Your task to perform on an android device: Search for seafood restaurants on Google Maps Image 0: 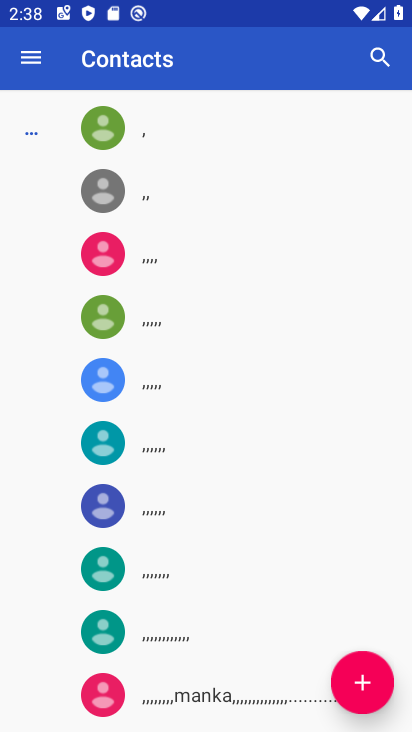
Step 0: press home button
Your task to perform on an android device: Search for seafood restaurants on Google Maps Image 1: 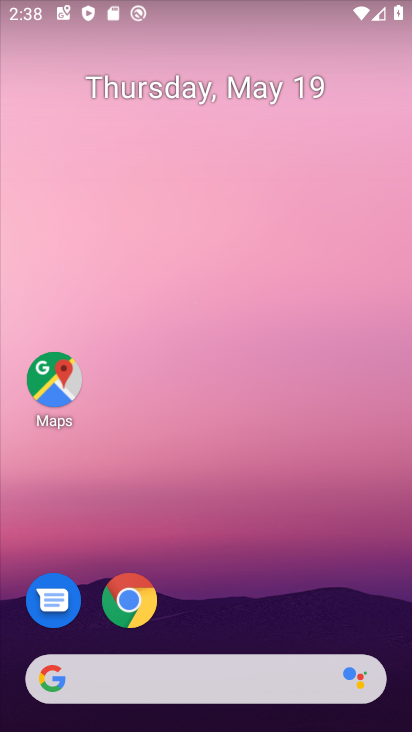
Step 1: click (65, 364)
Your task to perform on an android device: Search for seafood restaurants on Google Maps Image 2: 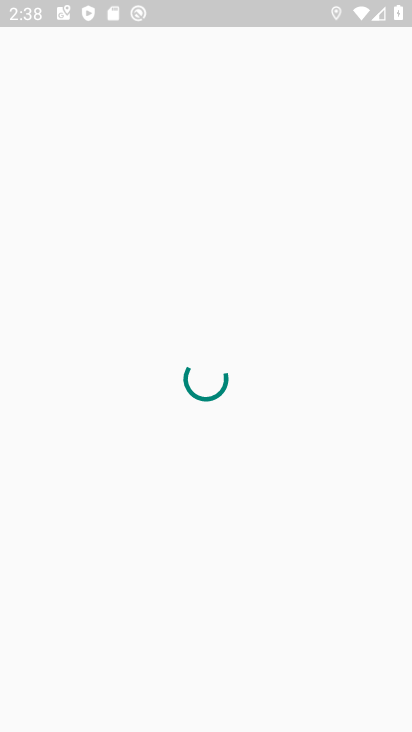
Step 2: click (205, 66)
Your task to perform on an android device: Search for seafood restaurants on Google Maps Image 3: 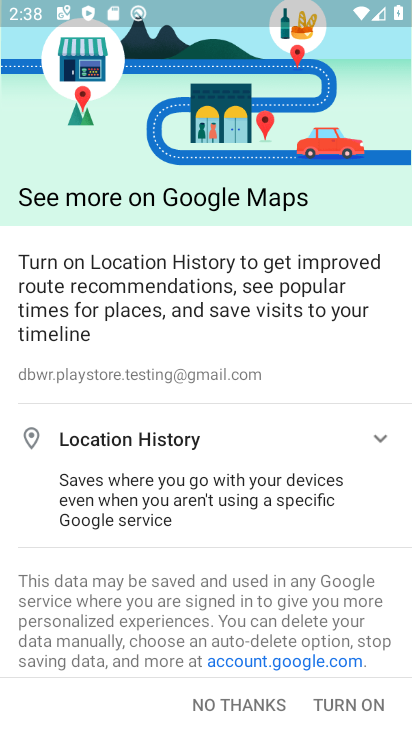
Step 3: click (351, 700)
Your task to perform on an android device: Search for seafood restaurants on Google Maps Image 4: 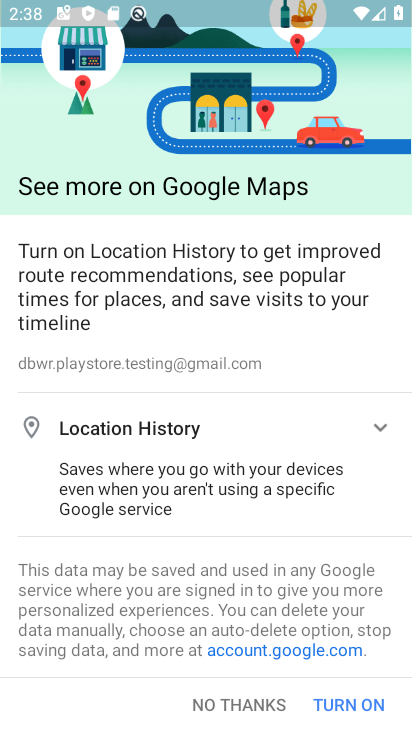
Step 4: click (351, 700)
Your task to perform on an android device: Search for seafood restaurants on Google Maps Image 5: 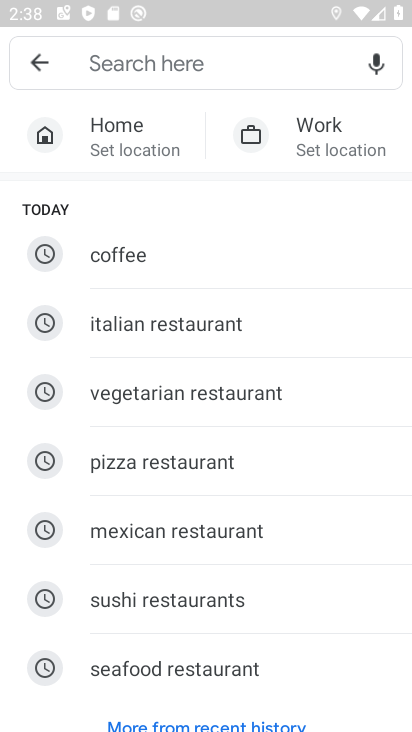
Step 5: click (186, 63)
Your task to perform on an android device: Search for seafood restaurants on Google Maps Image 6: 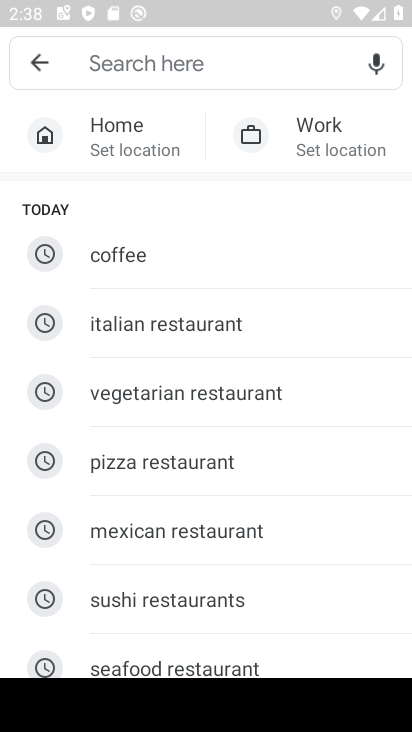
Step 6: type "seafood restaurants"
Your task to perform on an android device: Search for seafood restaurants on Google Maps Image 7: 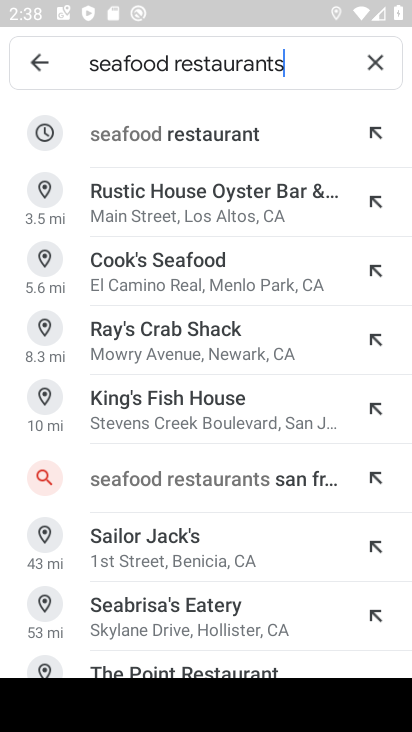
Step 7: click (148, 135)
Your task to perform on an android device: Search for seafood restaurants on Google Maps Image 8: 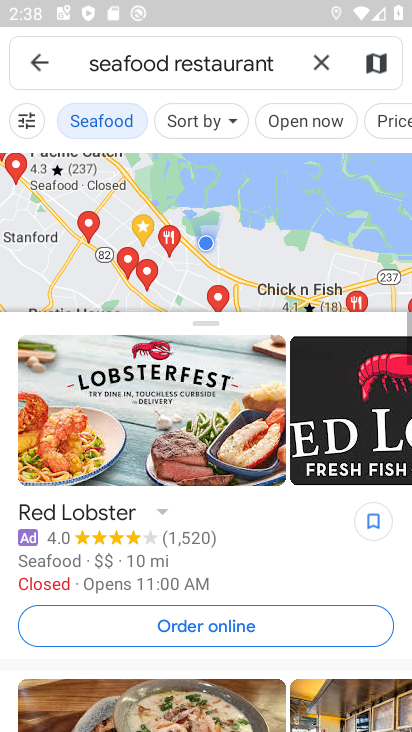
Step 8: task complete